Your task to perform on an android device: turn on priority inbox in the gmail app Image 0: 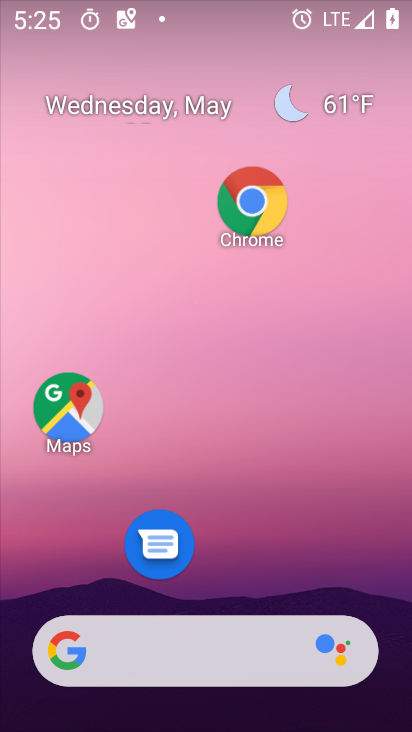
Step 0: drag from (255, 623) to (297, 119)
Your task to perform on an android device: turn on priority inbox in the gmail app Image 1: 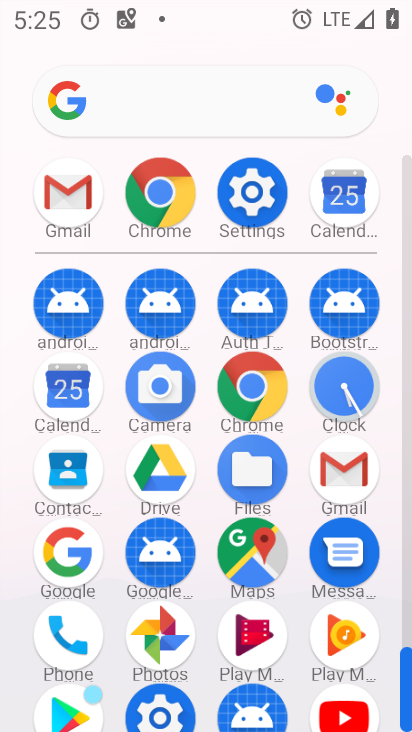
Step 1: click (74, 202)
Your task to perform on an android device: turn on priority inbox in the gmail app Image 2: 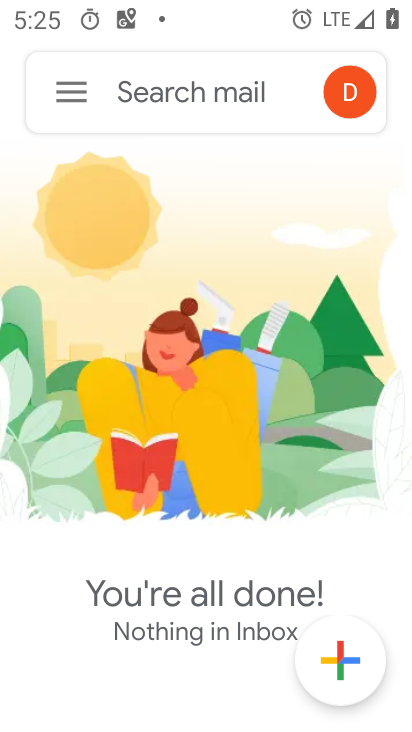
Step 2: click (76, 96)
Your task to perform on an android device: turn on priority inbox in the gmail app Image 3: 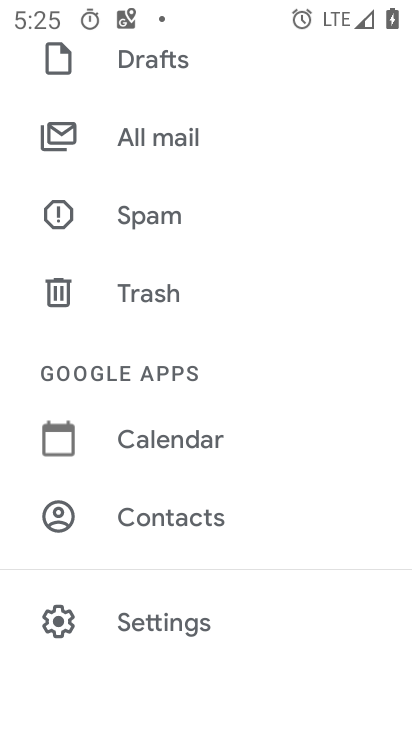
Step 3: click (193, 616)
Your task to perform on an android device: turn on priority inbox in the gmail app Image 4: 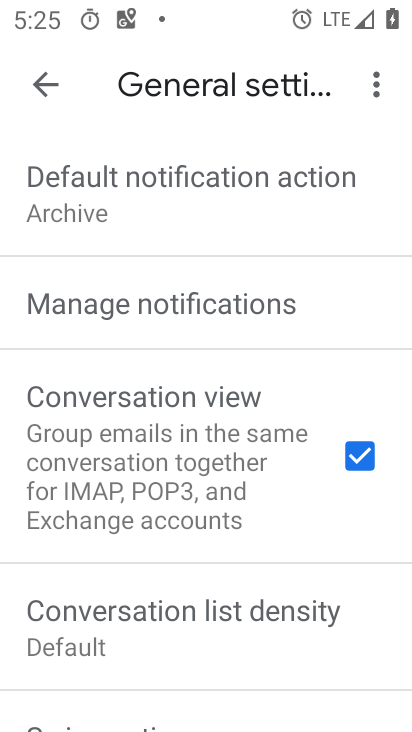
Step 4: drag from (175, 658) to (181, 335)
Your task to perform on an android device: turn on priority inbox in the gmail app Image 5: 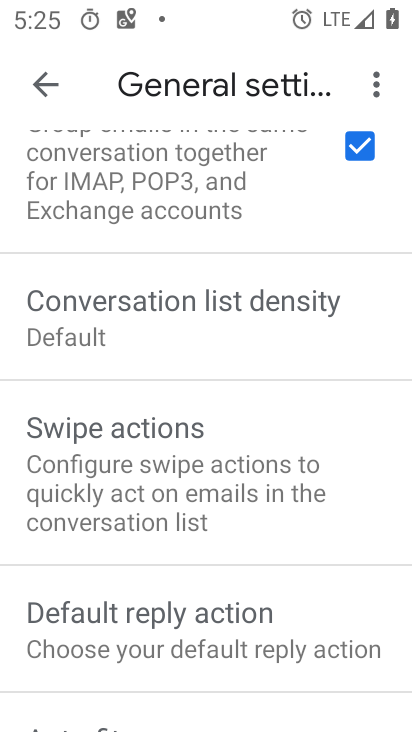
Step 5: click (29, 98)
Your task to perform on an android device: turn on priority inbox in the gmail app Image 6: 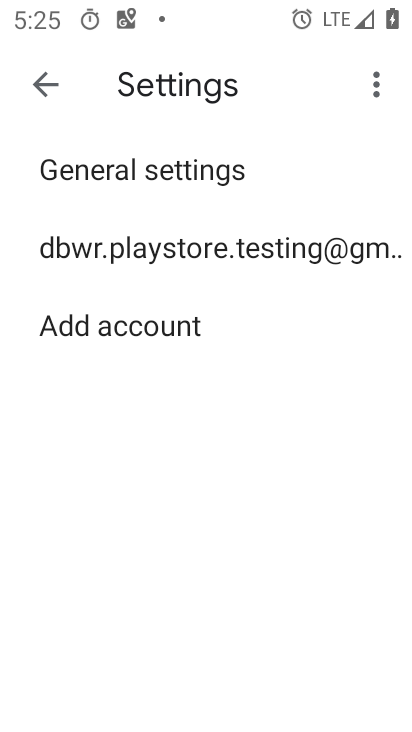
Step 6: click (137, 258)
Your task to perform on an android device: turn on priority inbox in the gmail app Image 7: 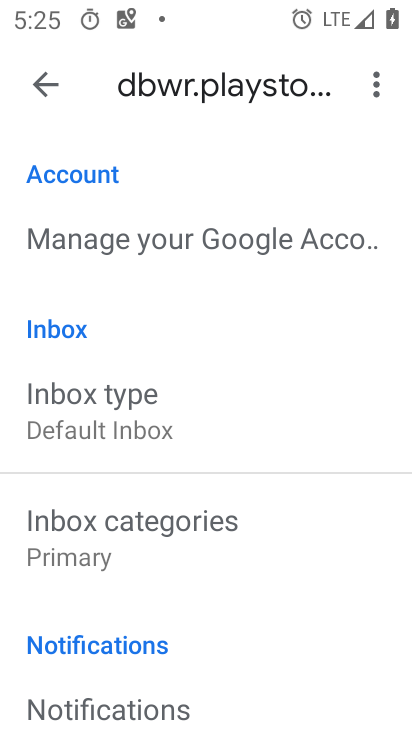
Step 7: click (102, 414)
Your task to perform on an android device: turn on priority inbox in the gmail app Image 8: 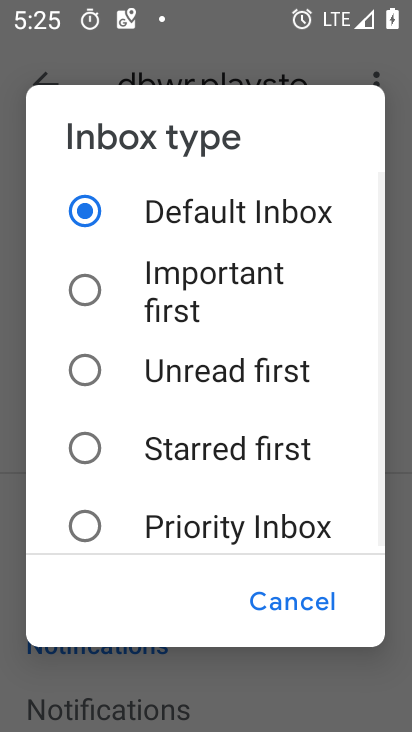
Step 8: click (245, 522)
Your task to perform on an android device: turn on priority inbox in the gmail app Image 9: 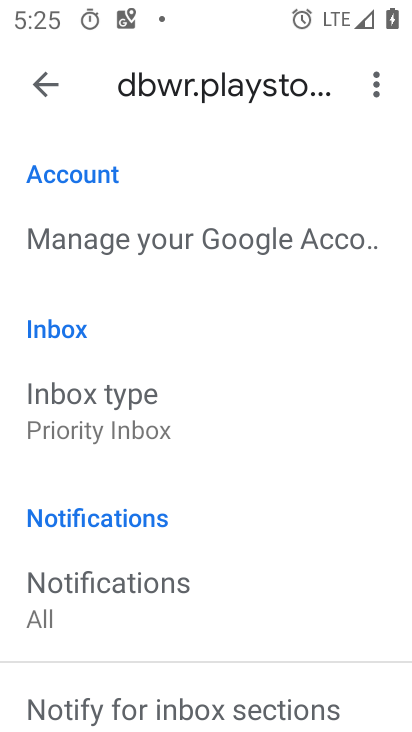
Step 9: task complete